Your task to perform on an android device: Show me recent news Image 0: 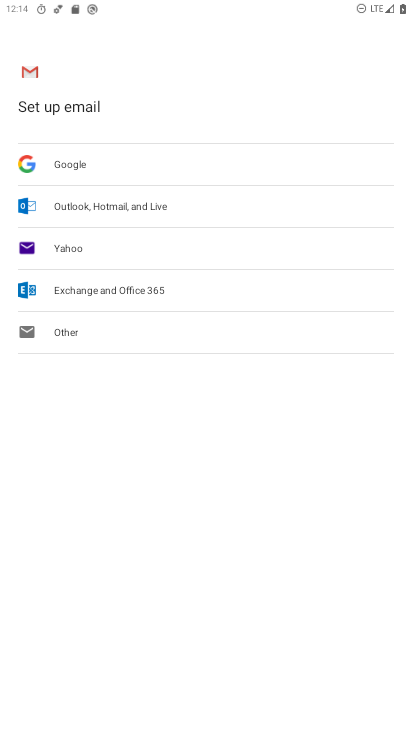
Step 0: press home button
Your task to perform on an android device: Show me recent news Image 1: 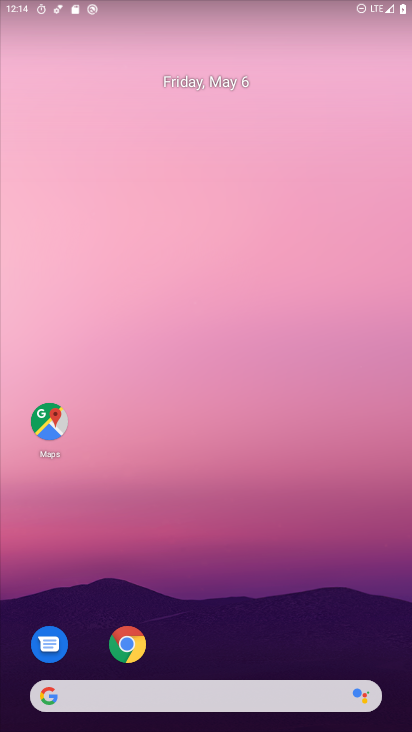
Step 1: drag from (352, 595) to (318, 79)
Your task to perform on an android device: Show me recent news Image 2: 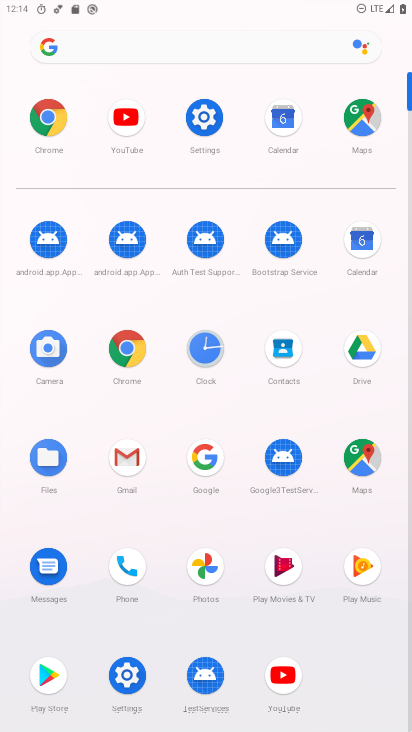
Step 2: click (31, 128)
Your task to perform on an android device: Show me recent news Image 3: 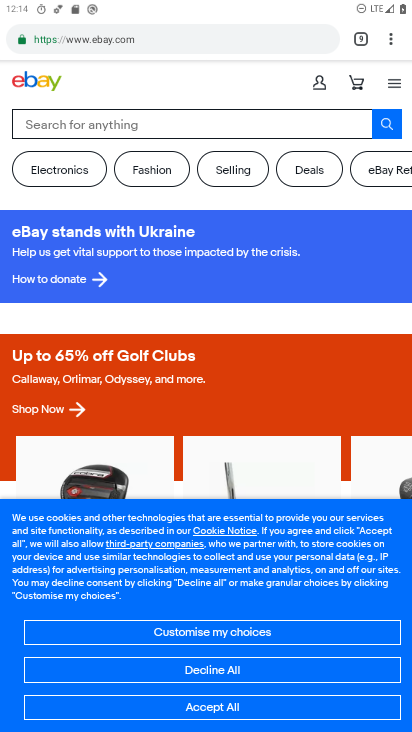
Step 3: click (134, 38)
Your task to perform on an android device: Show me recent news Image 4: 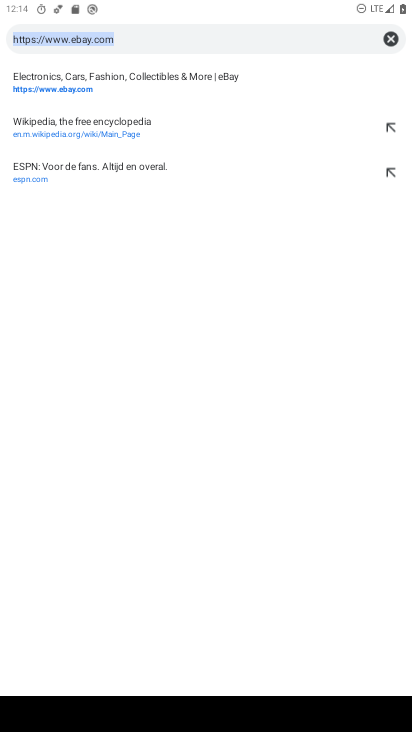
Step 4: click (386, 40)
Your task to perform on an android device: Show me recent news Image 5: 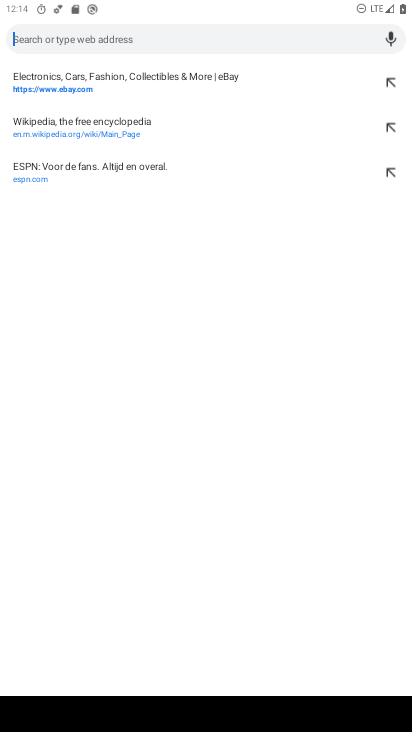
Step 5: type "recent news"
Your task to perform on an android device: Show me recent news Image 6: 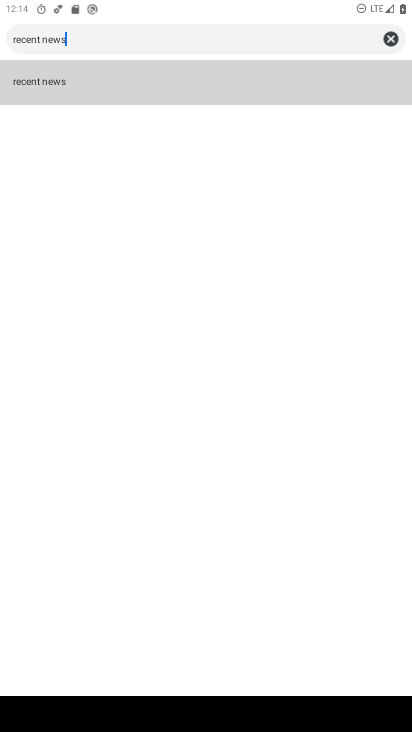
Step 6: click (38, 80)
Your task to perform on an android device: Show me recent news Image 7: 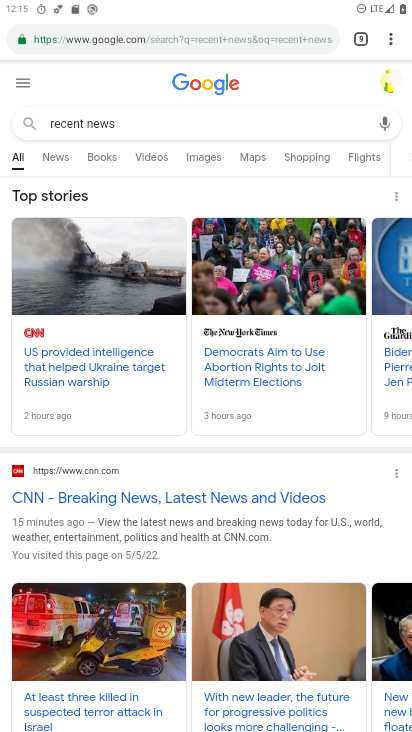
Step 7: click (102, 496)
Your task to perform on an android device: Show me recent news Image 8: 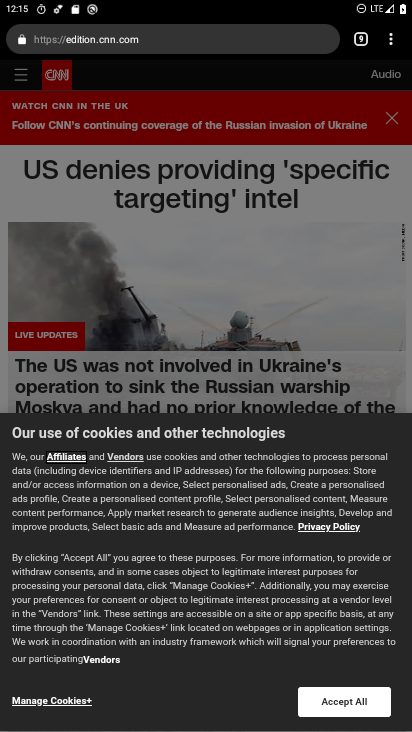
Step 8: task complete